Your task to perform on an android device: Go to notification settings Image 0: 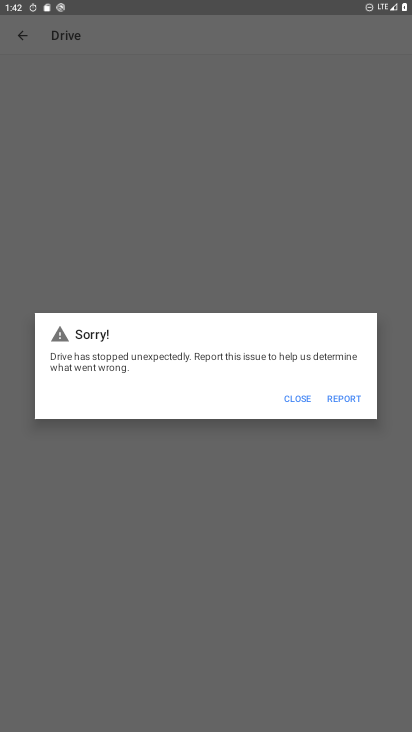
Step 0: drag from (17, 698) to (194, 160)
Your task to perform on an android device: Go to notification settings Image 1: 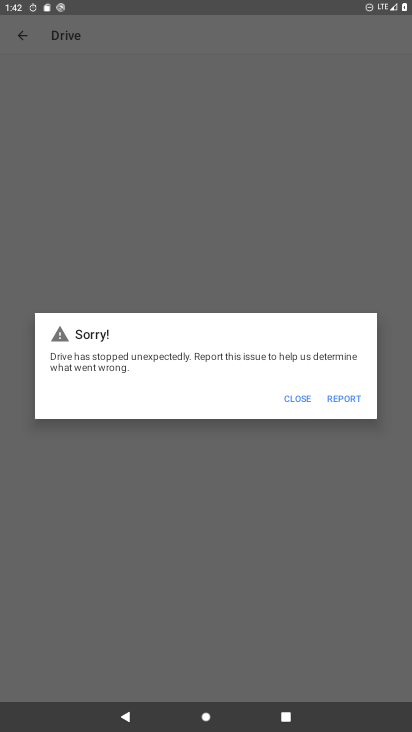
Step 1: press home button
Your task to perform on an android device: Go to notification settings Image 2: 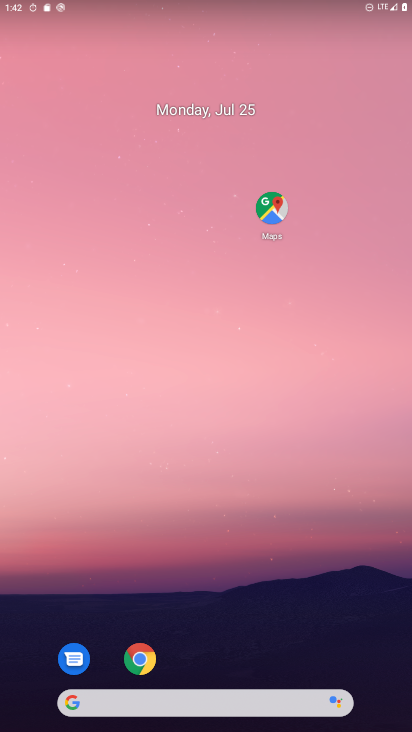
Step 2: drag from (16, 636) to (172, 122)
Your task to perform on an android device: Go to notification settings Image 3: 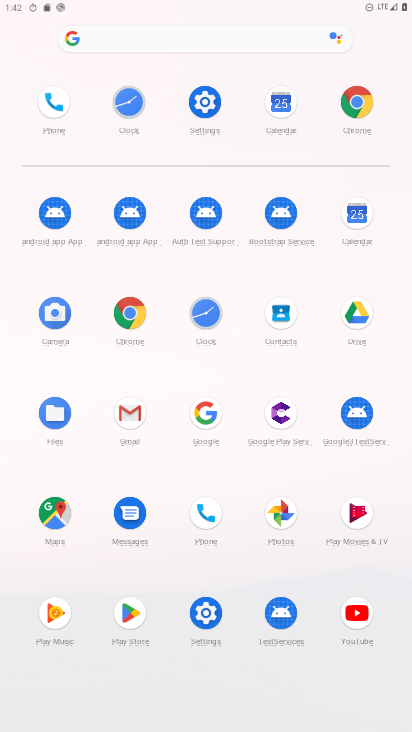
Step 3: click (198, 608)
Your task to perform on an android device: Go to notification settings Image 4: 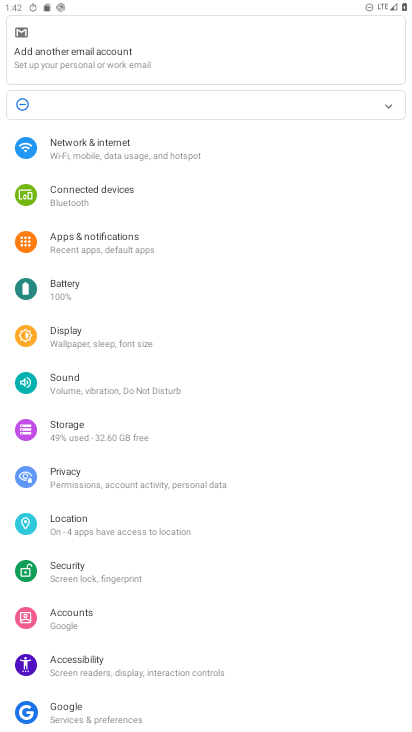
Step 4: click (108, 239)
Your task to perform on an android device: Go to notification settings Image 5: 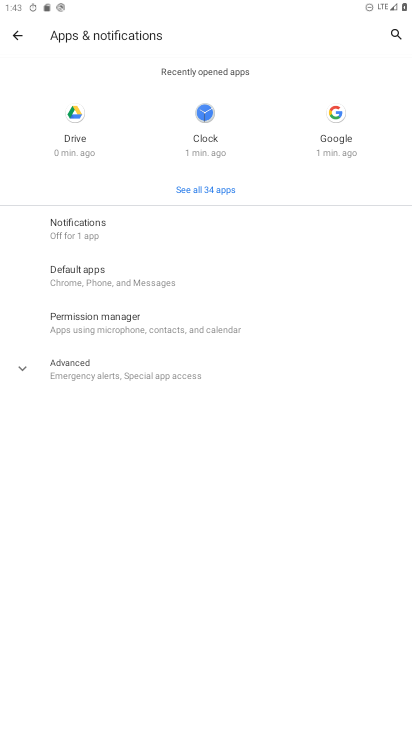
Step 5: click (105, 373)
Your task to perform on an android device: Go to notification settings Image 6: 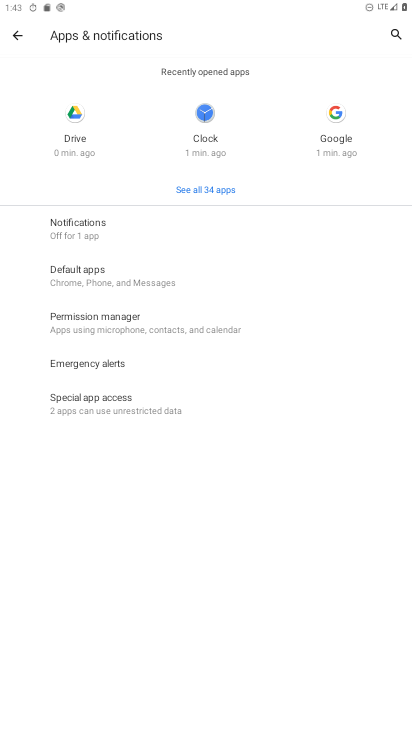
Step 6: click (109, 404)
Your task to perform on an android device: Go to notification settings Image 7: 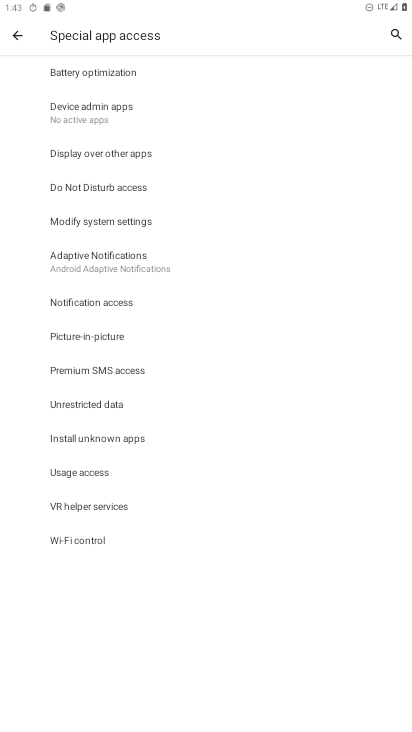
Step 7: task complete